Your task to perform on an android device: allow notifications from all sites in the chrome app Image 0: 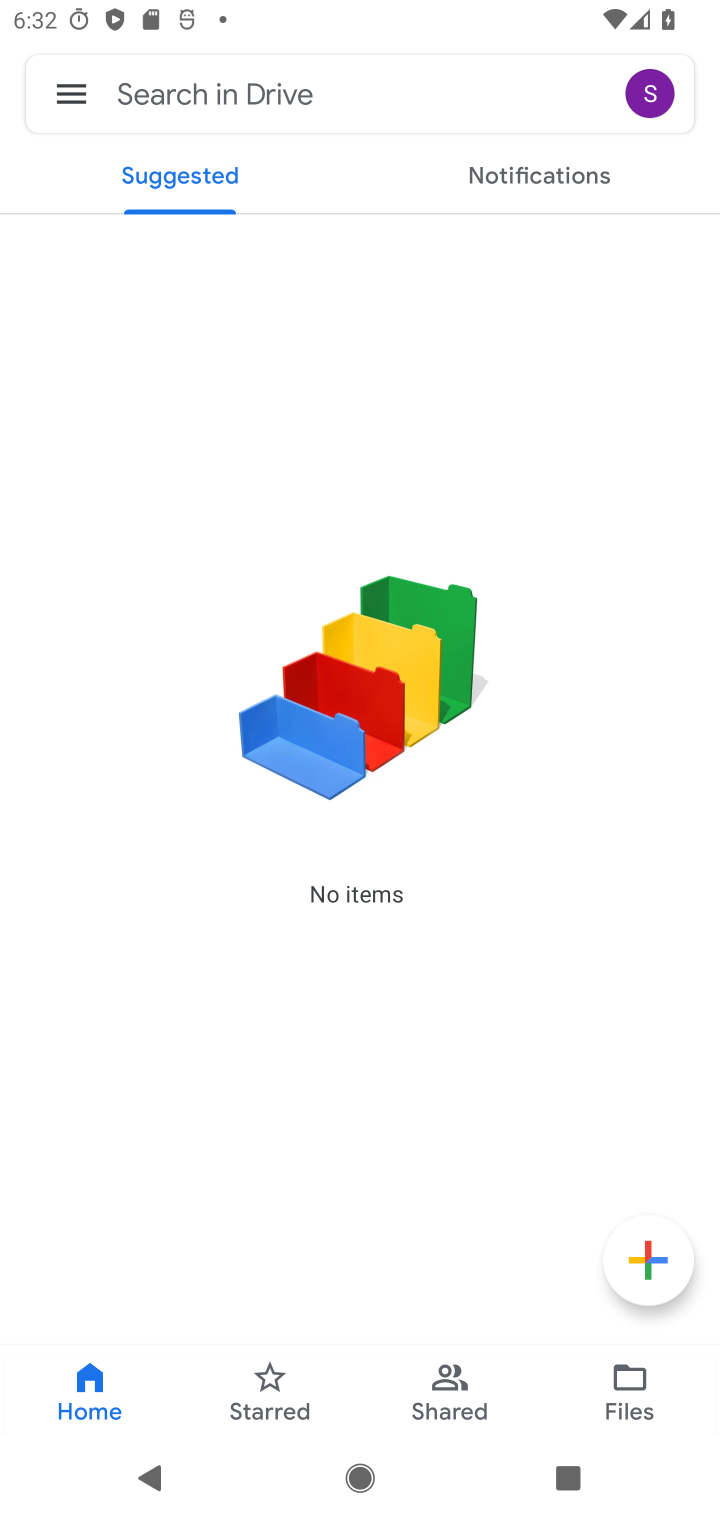
Step 0: press home button
Your task to perform on an android device: allow notifications from all sites in the chrome app Image 1: 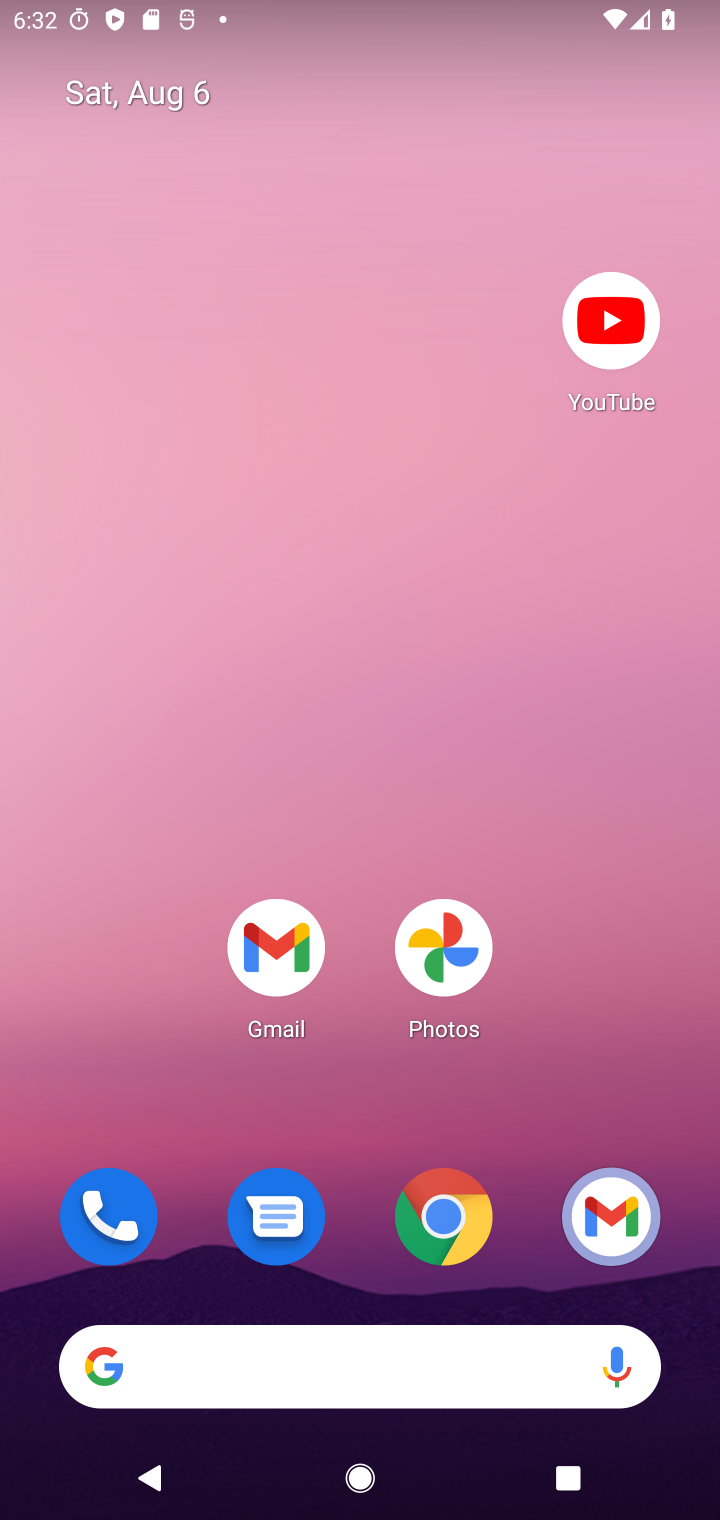
Step 1: drag from (604, 1051) to (338, 29)
Your task to perform on an android device: allow notifications from all sites in the chrome app Image 2: 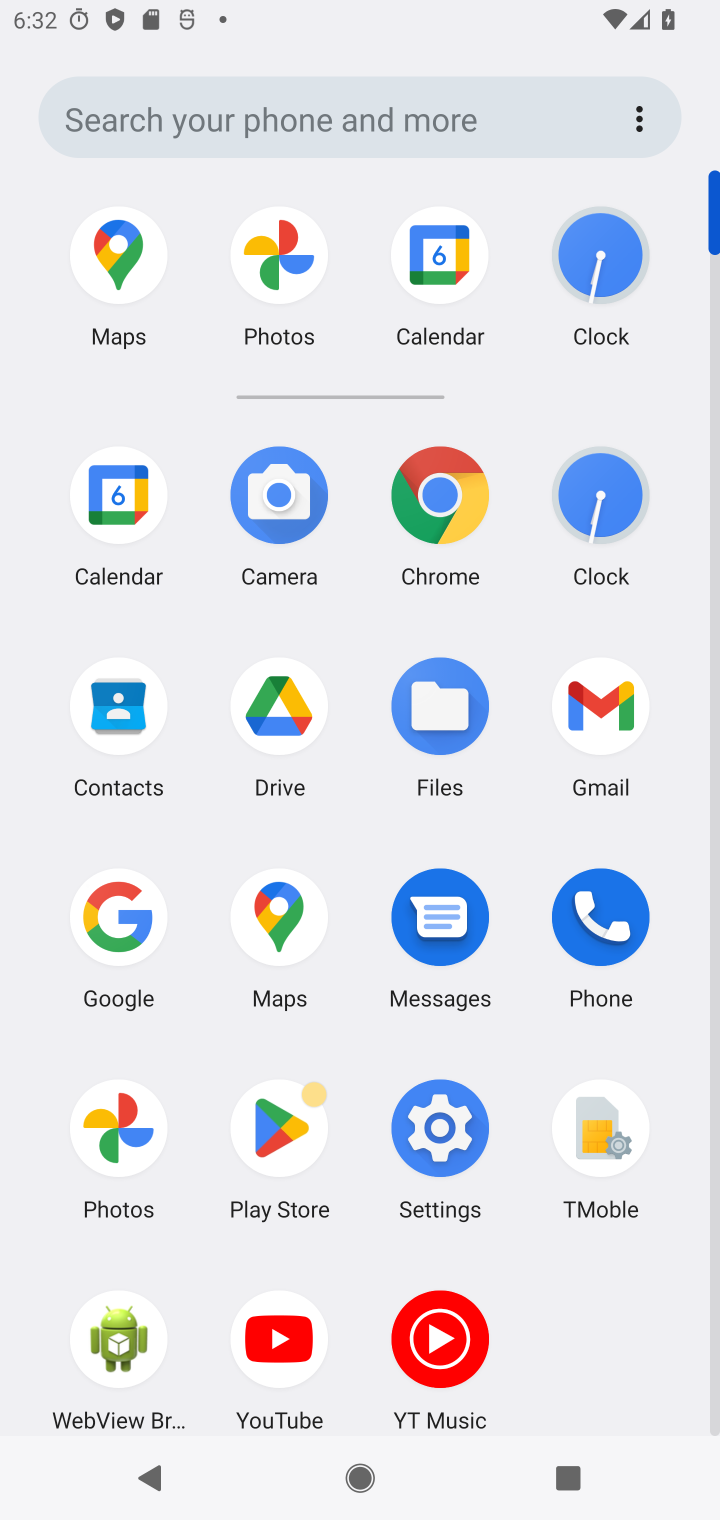
Step 2: click (425, 493)
Your task to perform on an android device: allow notifications from all sites in the chrome app Image 3: 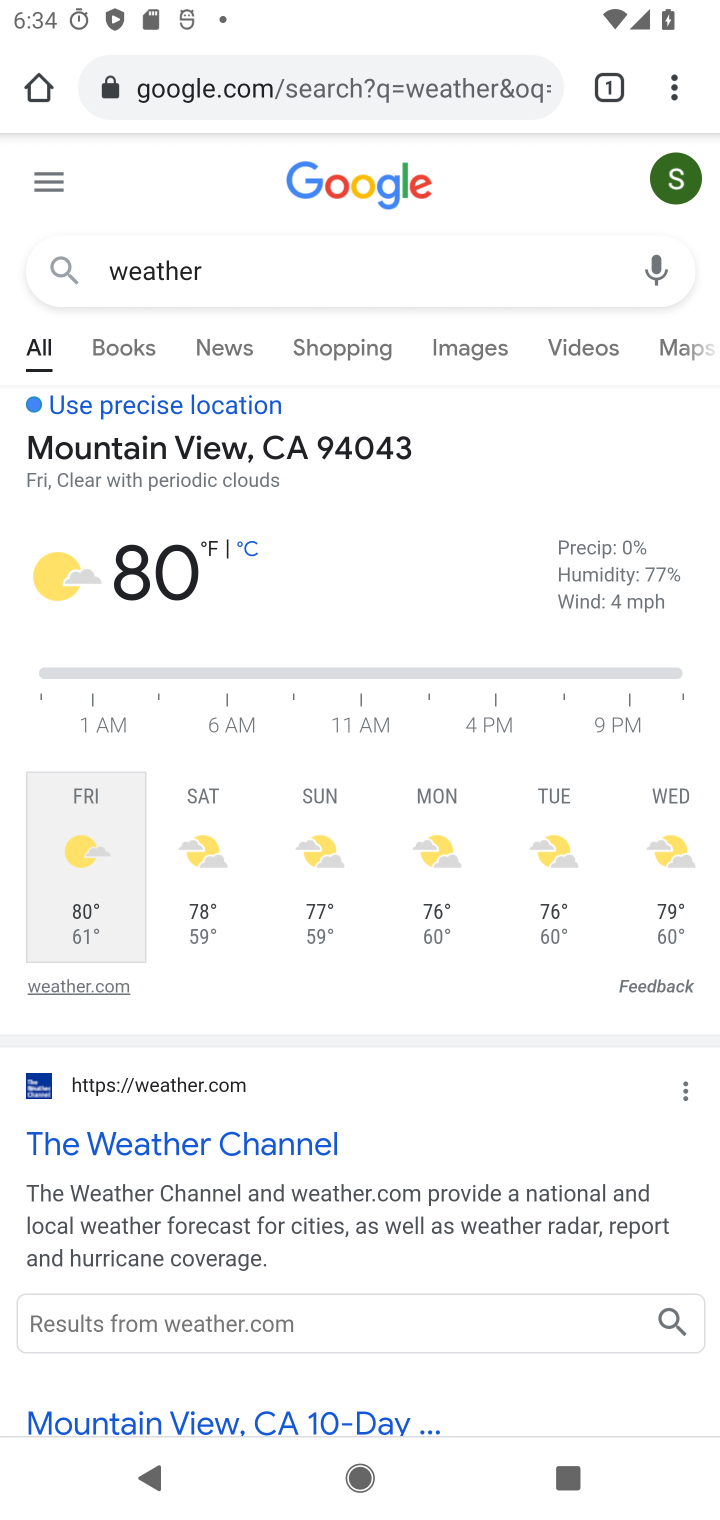
Step 3: drag from (670, 73) to (413, 1160)
Your task to perform on an android device: allow notifications from all sites in the chrome app Image 4: 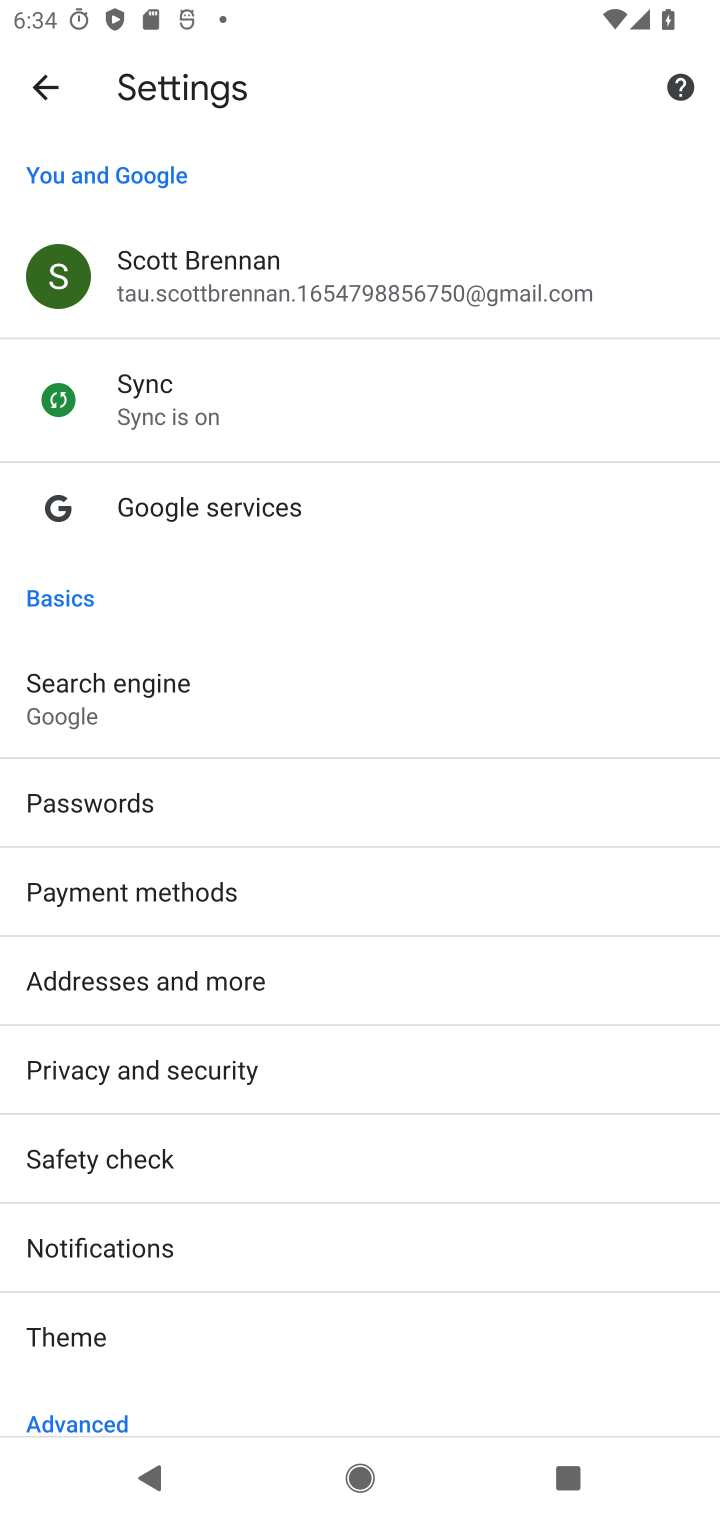
Step 4: click (125, 1241)
Your task to perform on an android device: allow notifications from all sites in the chrome app Image 5: 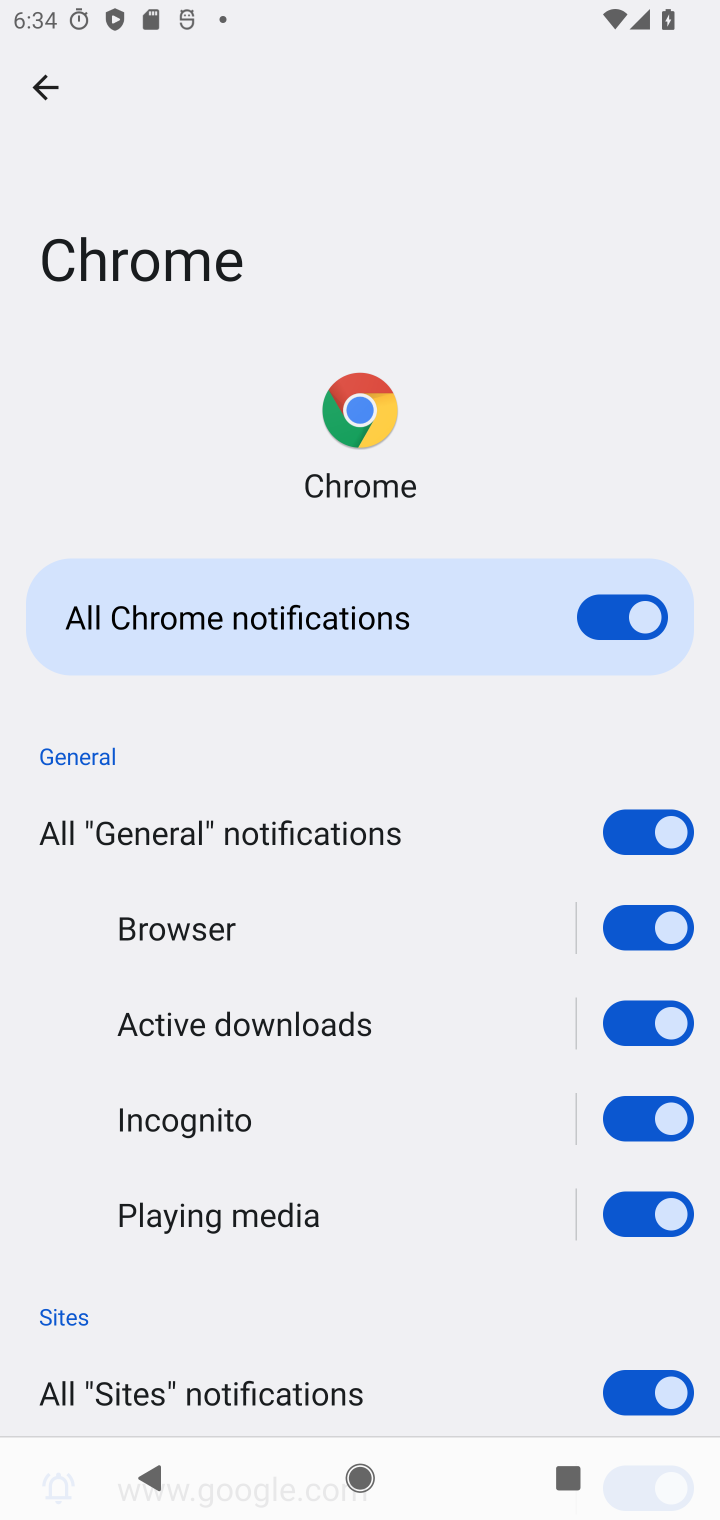
Step 5: task complete